Your task to perform on an android device: manage bookmarks in the chrome app Image 0: 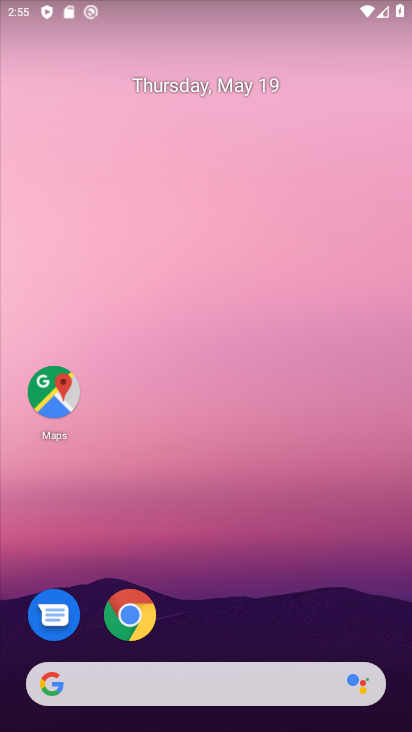
Step 0: drag from (325, 613) to (332, 71)
Your task to perform on an android device: manage bookmarks in the chrome app Image 1: 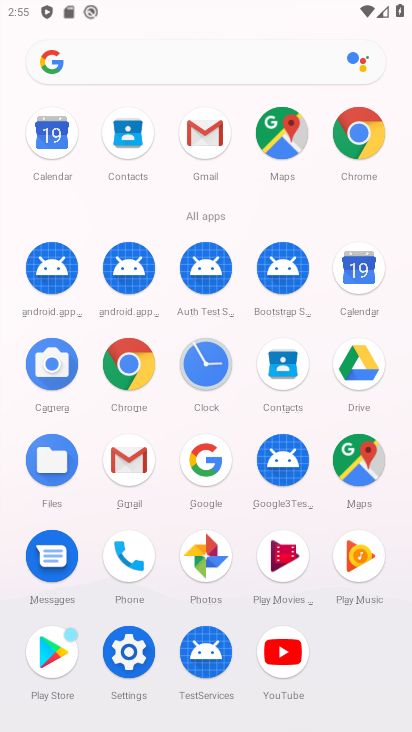
Step 1: click (351, 124)
Your task to perform on an android device: manage bookmarks in the chrome app Image 2: 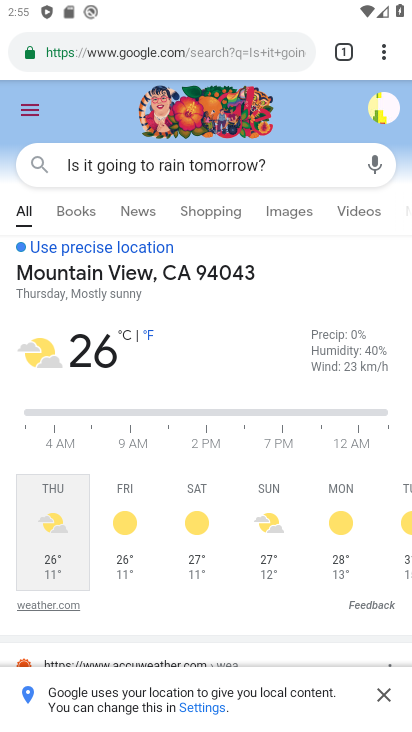
Step 2: task complete